Your task to perform on an android device: Open the map Image 0: 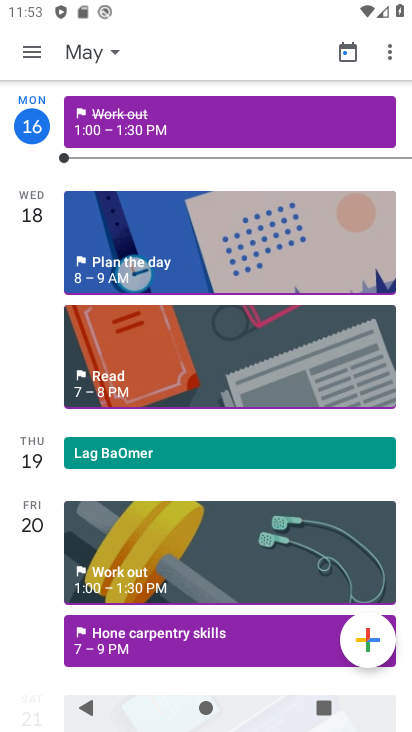
Step 0: press home button
Your task to perform on an android device: Open the map Image 1: 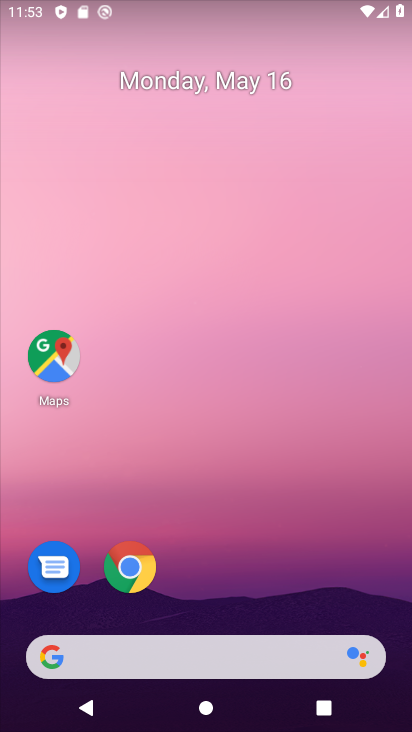
Step 1: click (53, 365)
Your task to perform on an android device: Open the map Image 2: 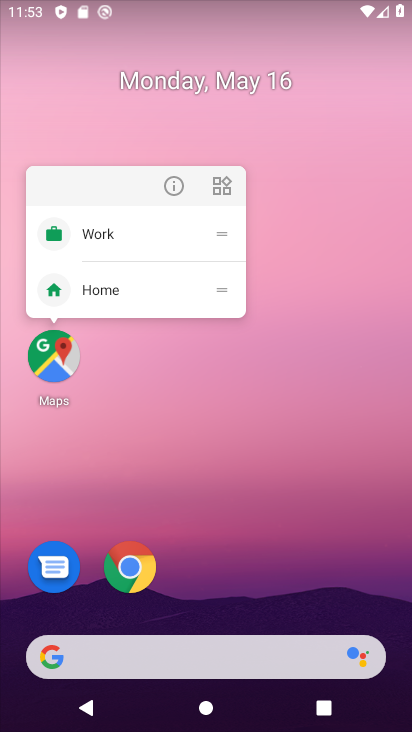
Step 2: click (41, 356)
Your task to perform on an android device: Open the map Image 3: 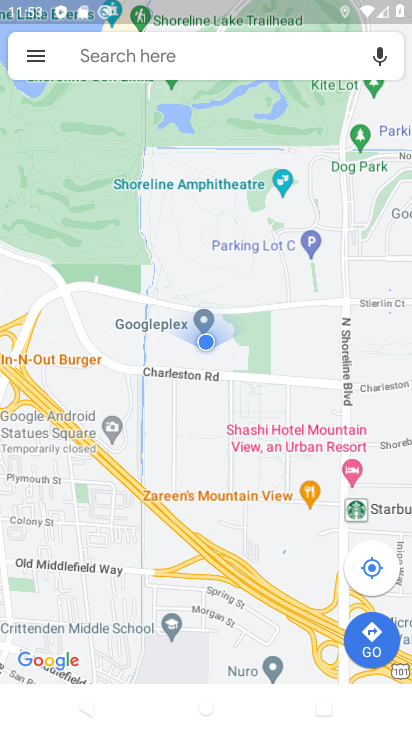
Step 3: task complete